Your task to perform on an android device: turn off location Image 0: 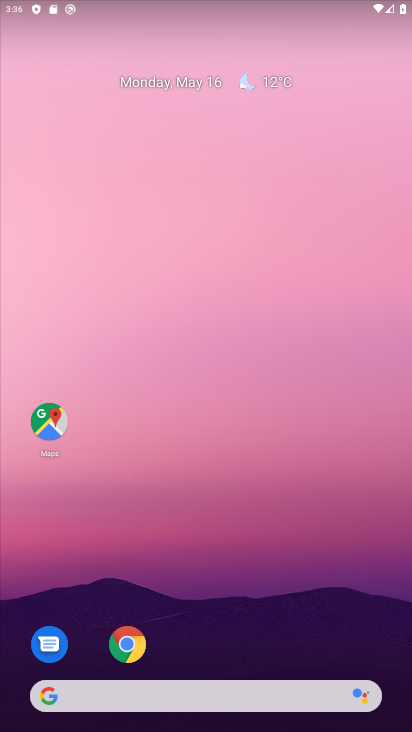
Step 0: drag from (289, 600) to (187, 175)
Your task to perform on an android device: turn off location Image 1: 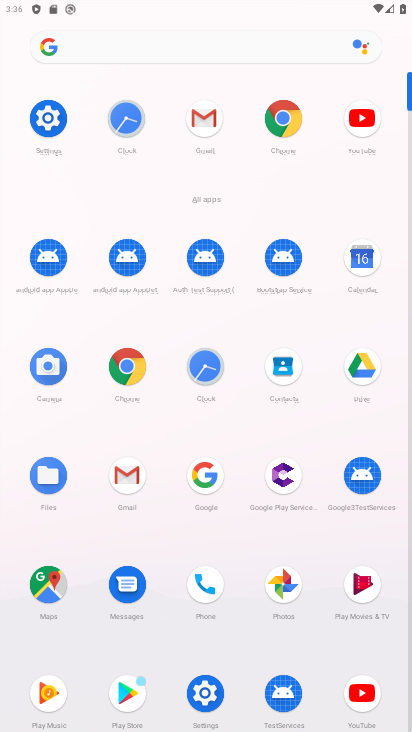
Step 1: click (44, 126)
Your task to perform on an android device: turn off location Image 2: 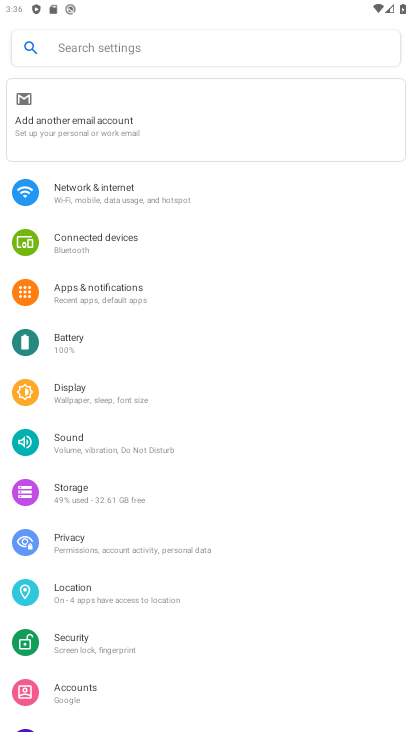
Step 2: click (106, 594)
Your task to perform on an android device: turn off location Image 3: 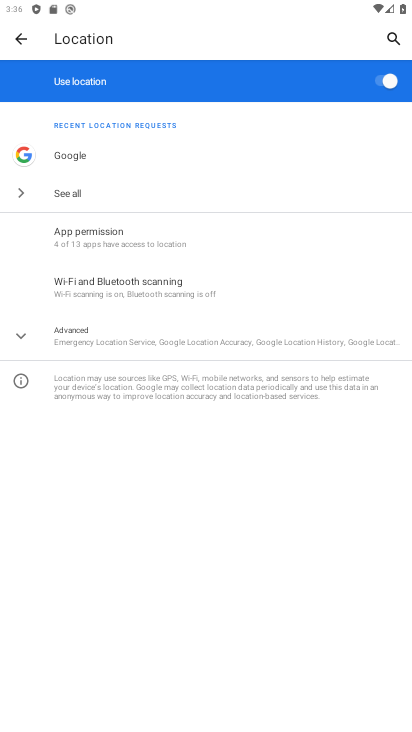
Step 3: click (393, 89)
Your task to perform on an android device: turn off location Image 4: 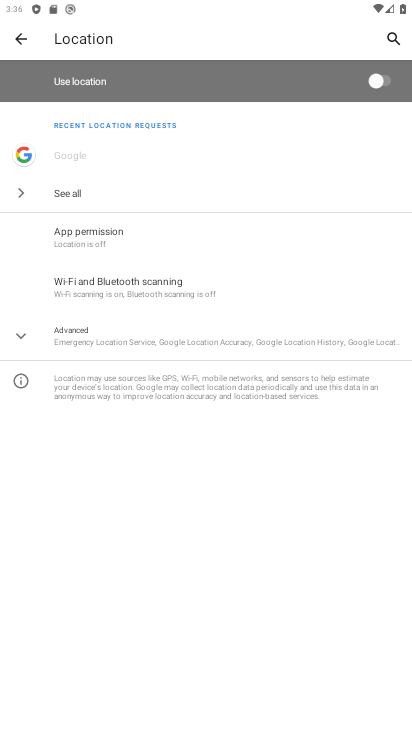
Step 4: task complete